Your task to perform on an android device: Open Chrome and go to settings Image 0: 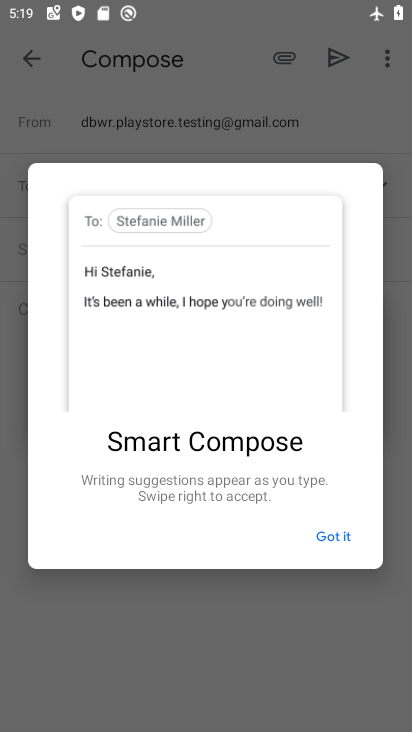
Step 0: press home button
Your task to perform on an android device: Open Chrome and go to settings Image 1: 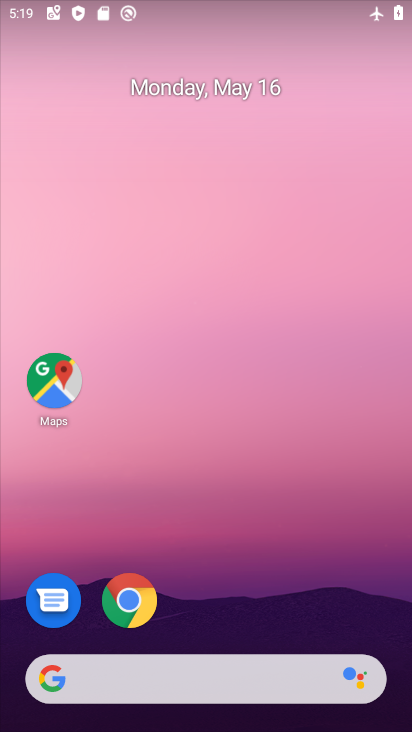
Step 1: click (146, 602)
Your task to perform on an android device: Open Chrome and go to settings Image 2: 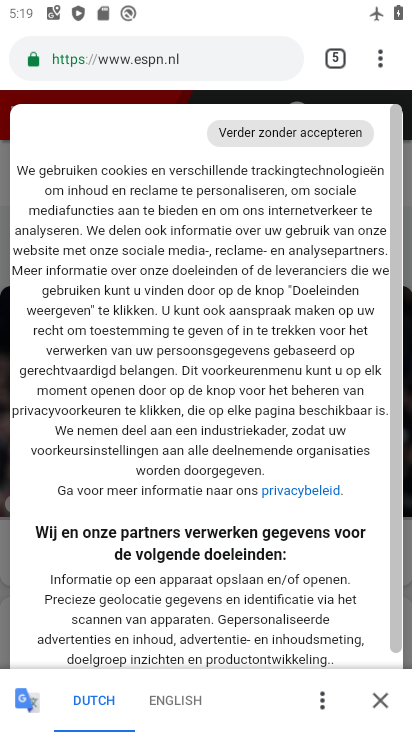
Step 2: click (373, 63)
Your task to perform on an android device: Open Chrome and go to settings Image 3: 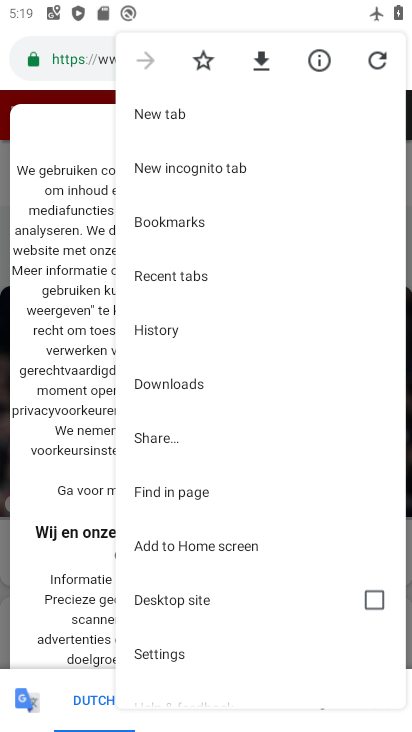
Step 3: click (175, 658)
Your task to perform on an android device: Open Chrome and go to settings Image 4: 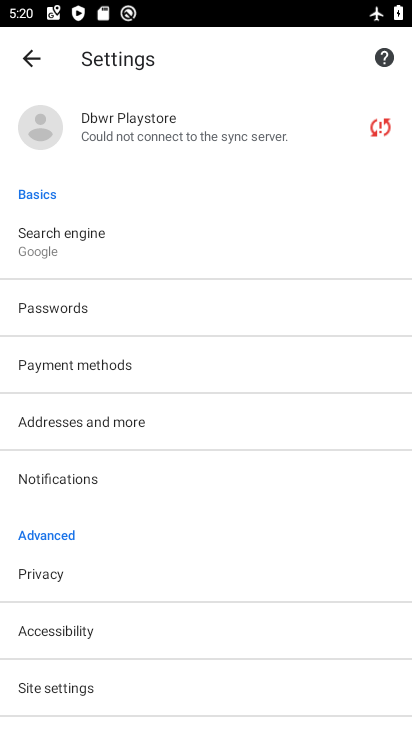
Step 4: task complete